Your task to perform on an android device: uninstall "Pluto TV - Live TV and Movies" Image 0: 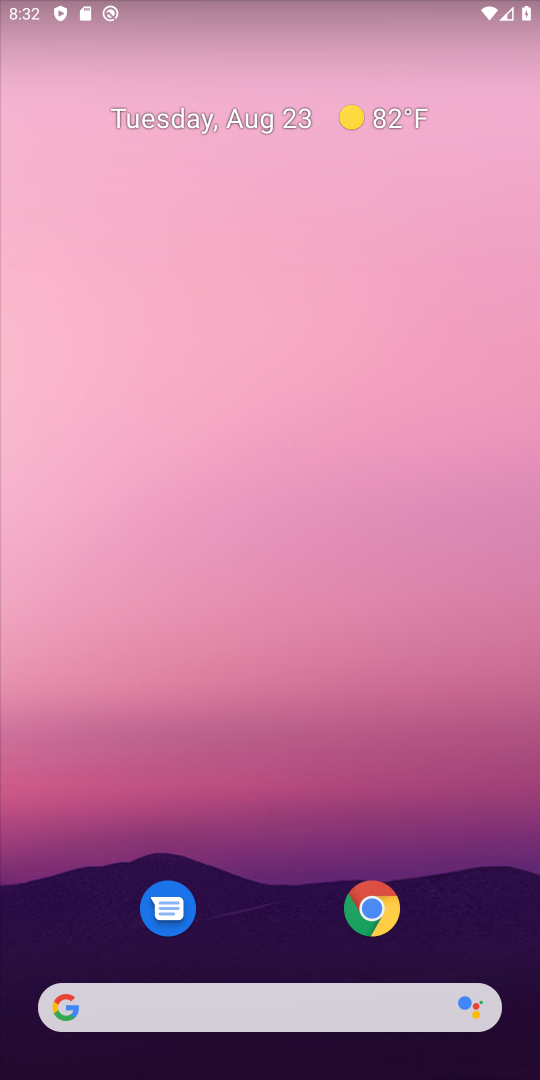
Step 0: click (254, 0)
Your task to perform on an android device: uninstall "Pluto TV - Live TV and Movies" Image 1: 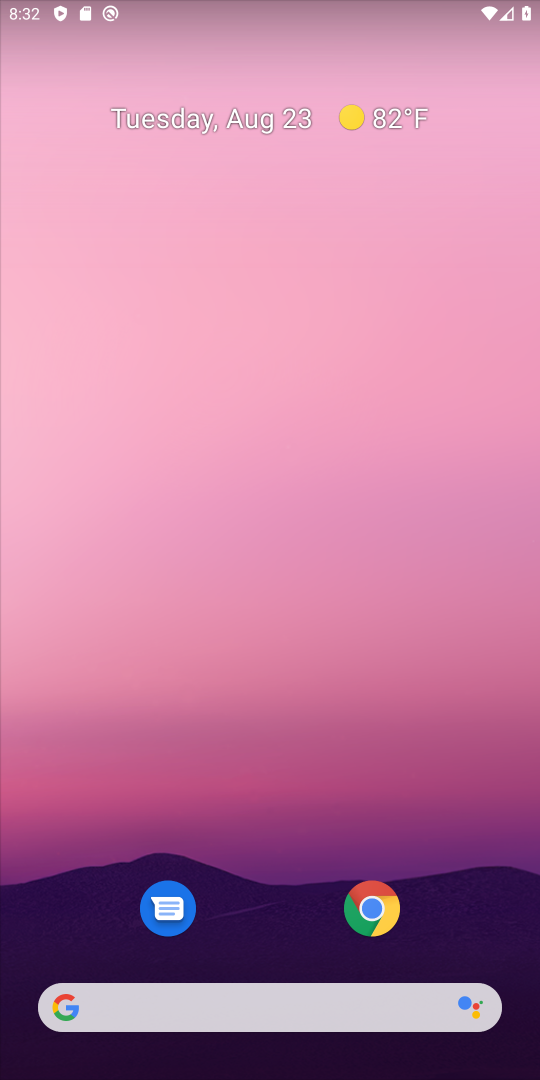
Step 1: drag from (220, 899) to (303, 109)
Your task to perform on an android device: uninstall "Pluto TV - Live TV and Movies" Image 2: 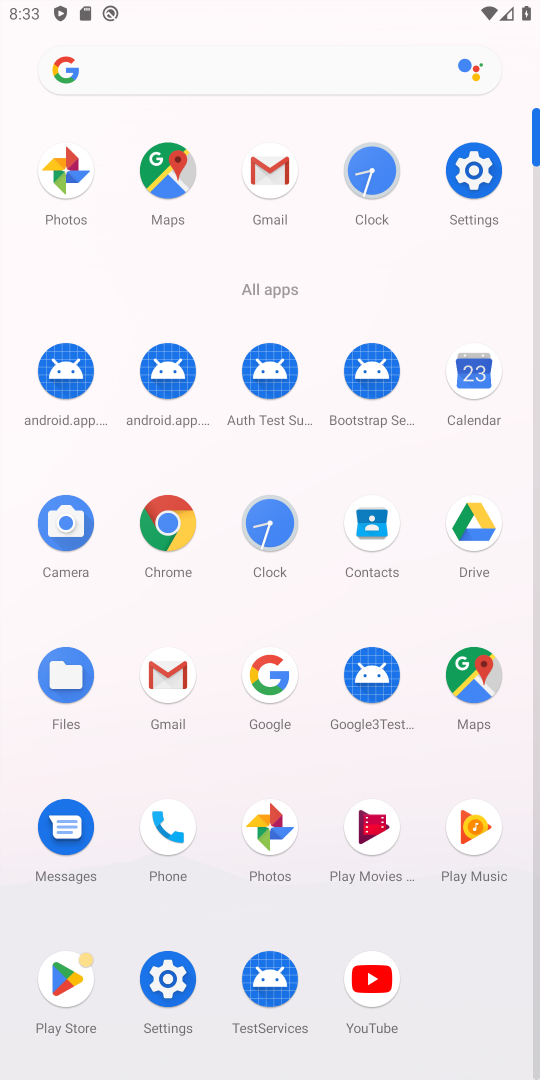
Step 2: click (68, 982)
Your task to perform on an android device: uninstall "Pluto TV - Live TV and Movies" Image 3: 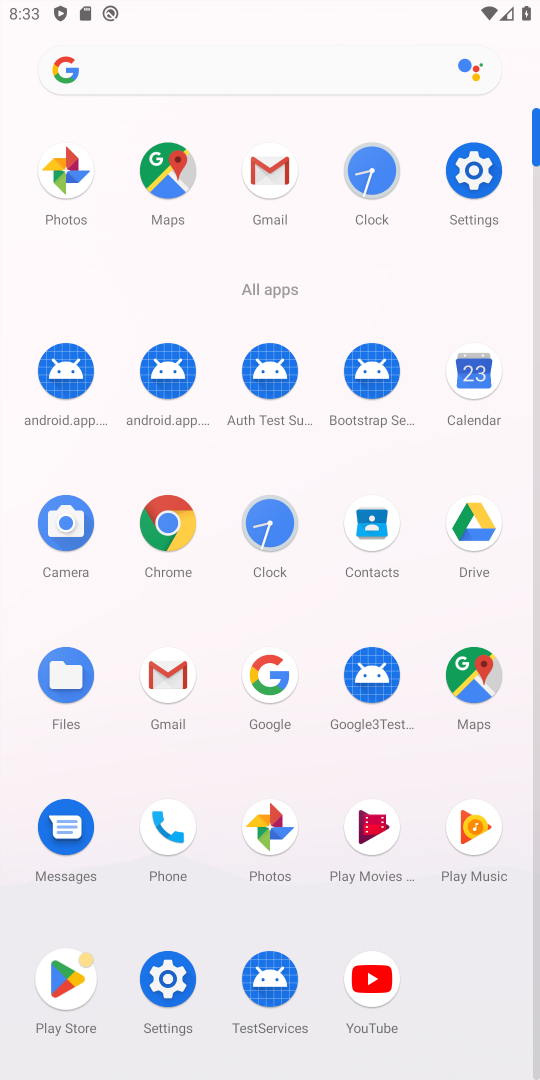
Step 3: click (81, 987)
Your task to perform on an android device: uninstall "Pluto TV - Live TV and Movies" Image 4: 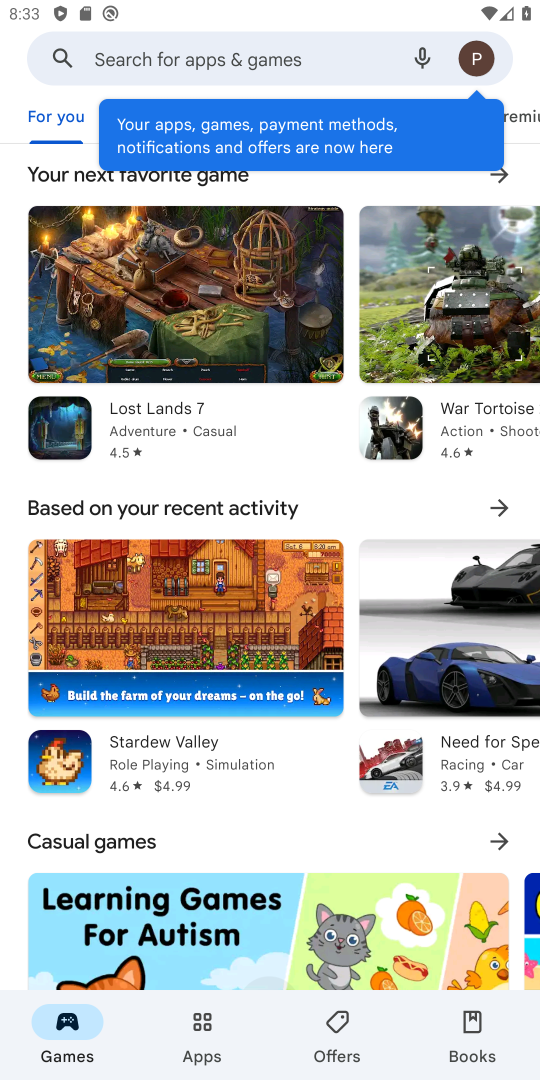
Step 4: click (214, 60)
Your task to perform on an android device: uninstall "Pluto TV - Live TV and Movies" Image 5: 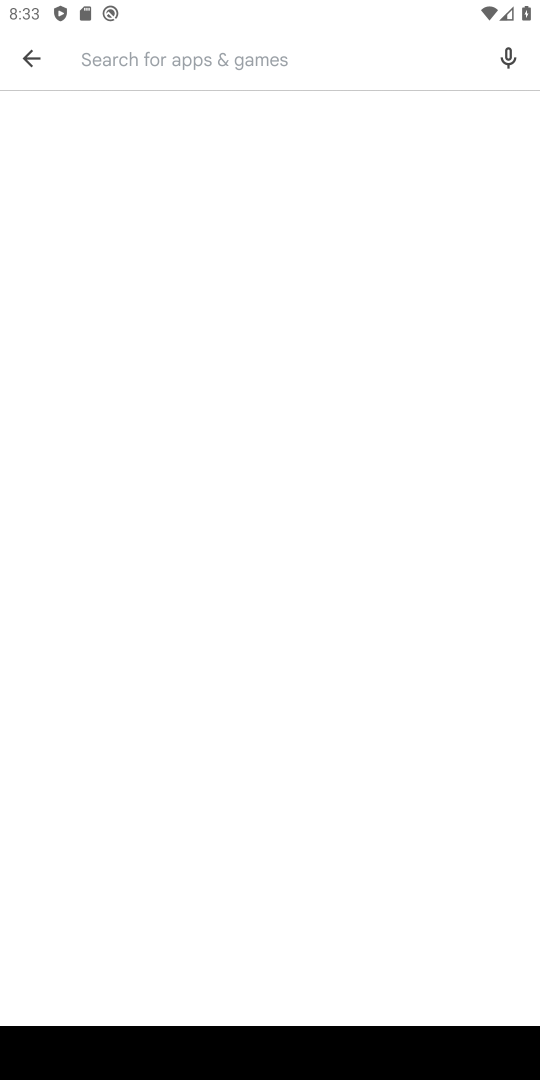
Step 5: type "Pluto TV"
Your task to perform on an android device: uninstall "Pluto TV - Live TV and Movies" Image 6: 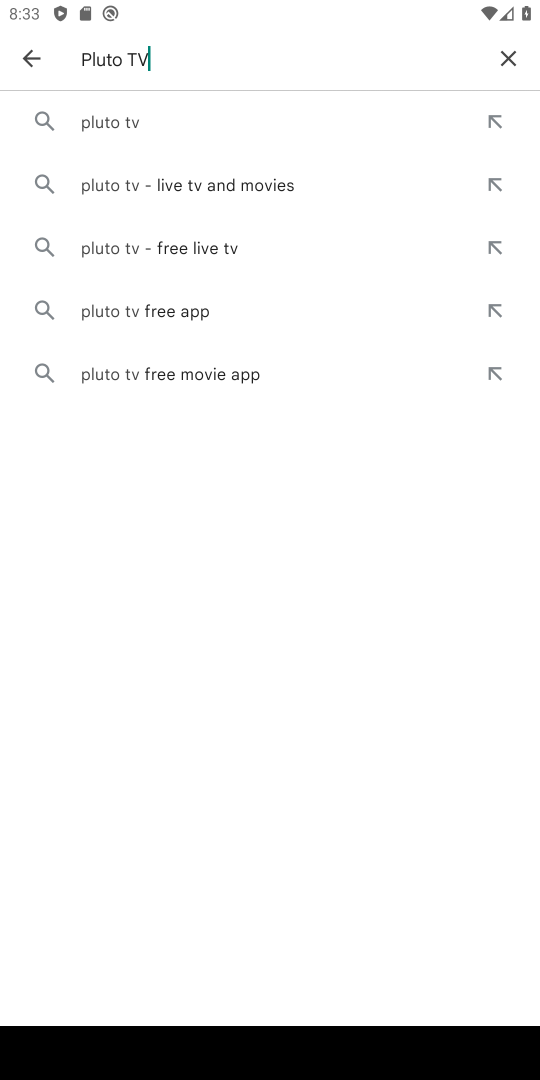
Step 6: click (116, 124)
Your task to perform on an android device: uninstall "Pluto TV - Live TV and Movies" Image 7: 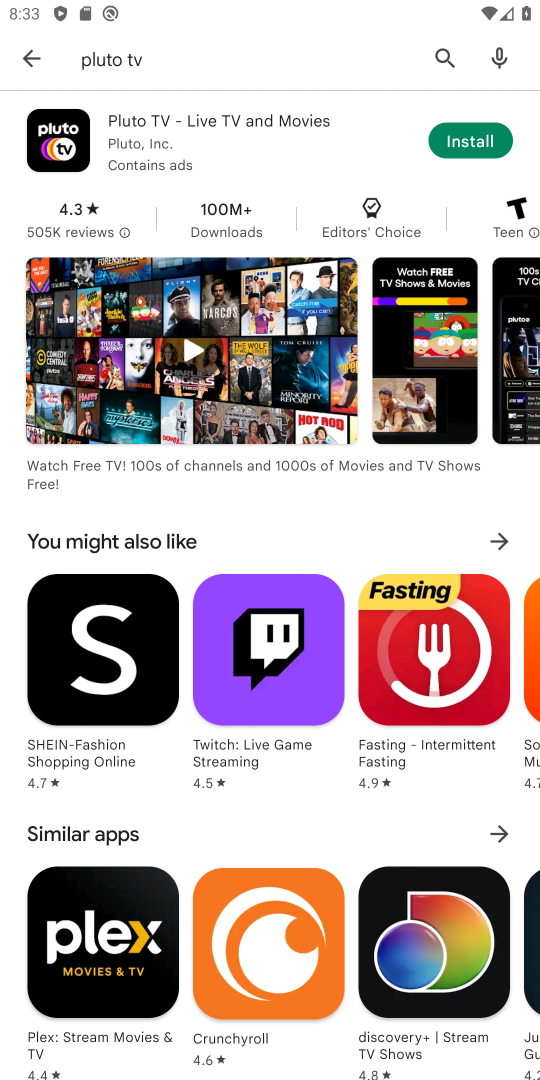
Step 7: task complete